Your task to perform on an android device: turn off translation in the chrome app Image 0: 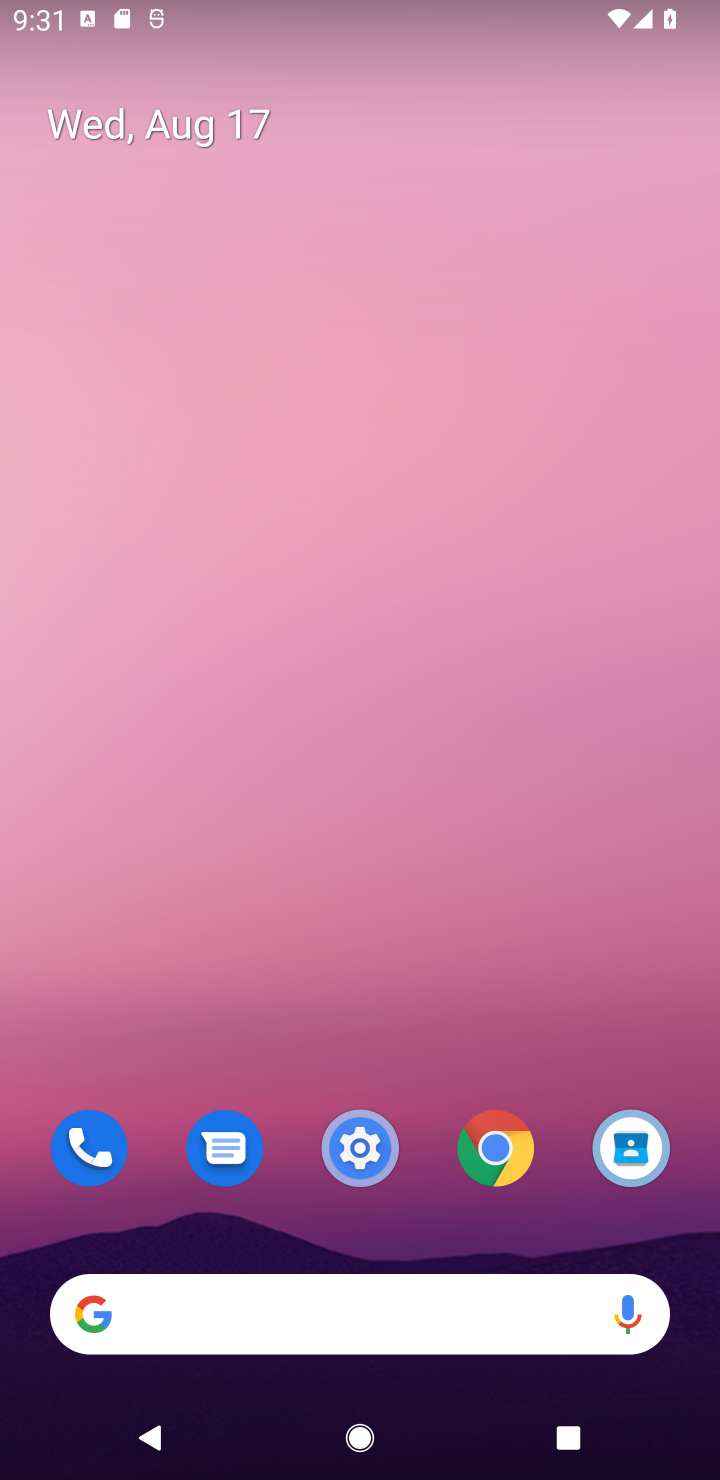
Step 0: click (501, 1154)
Your task to perform on an android device: turn off translation in the chrome app Image 1: 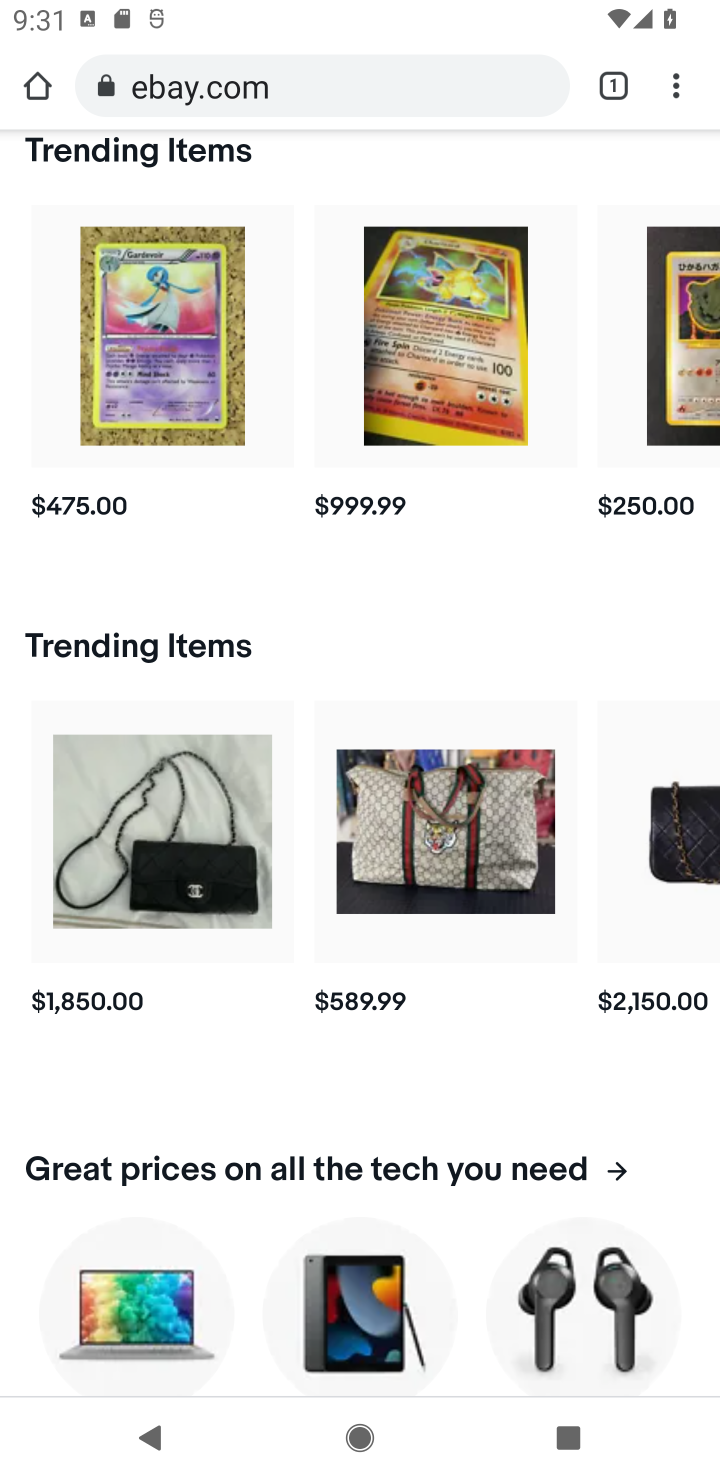
Step 1: click (659, 95)
Your task to perform on an android device: turn off translation in the chrome app Image 2: 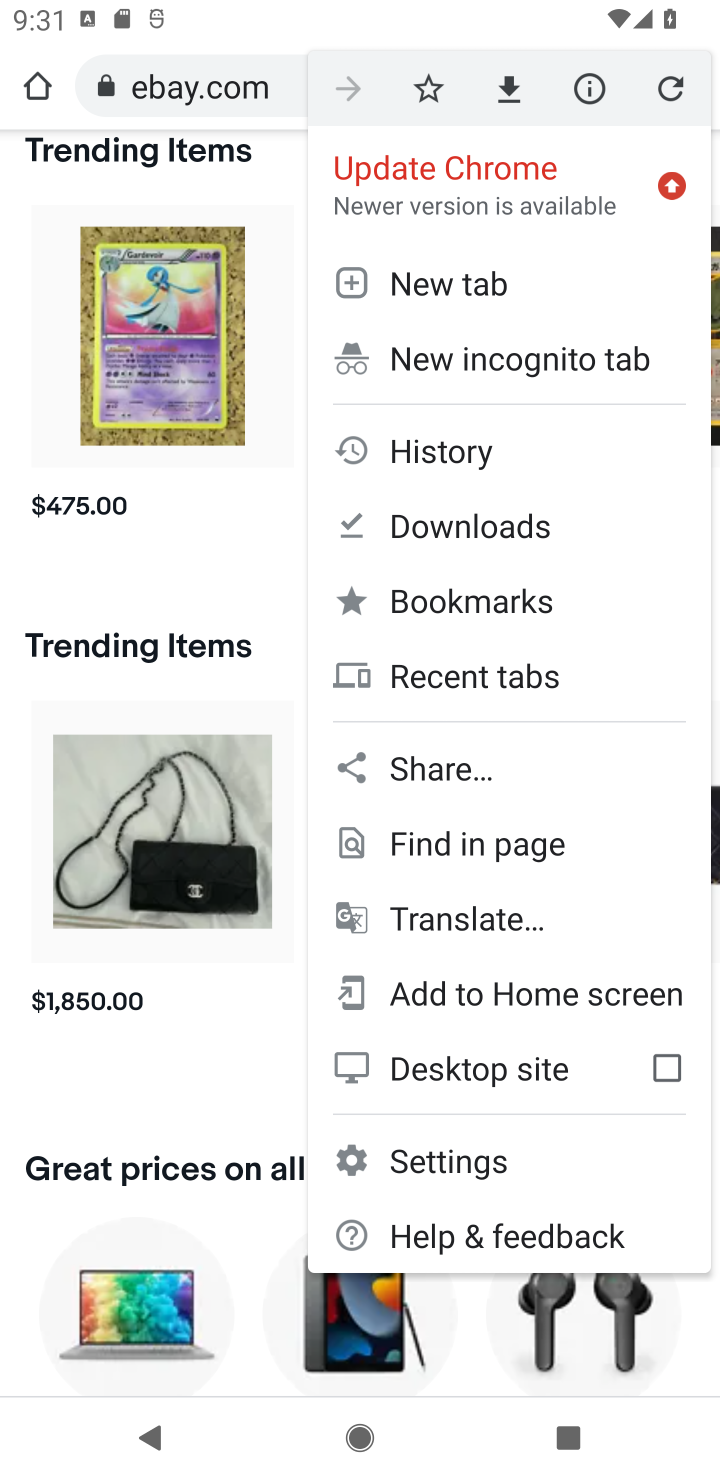
Step 2: click (468, 1152)
Your task to perform on an android device: turn off translation in the chrome app Image 3: 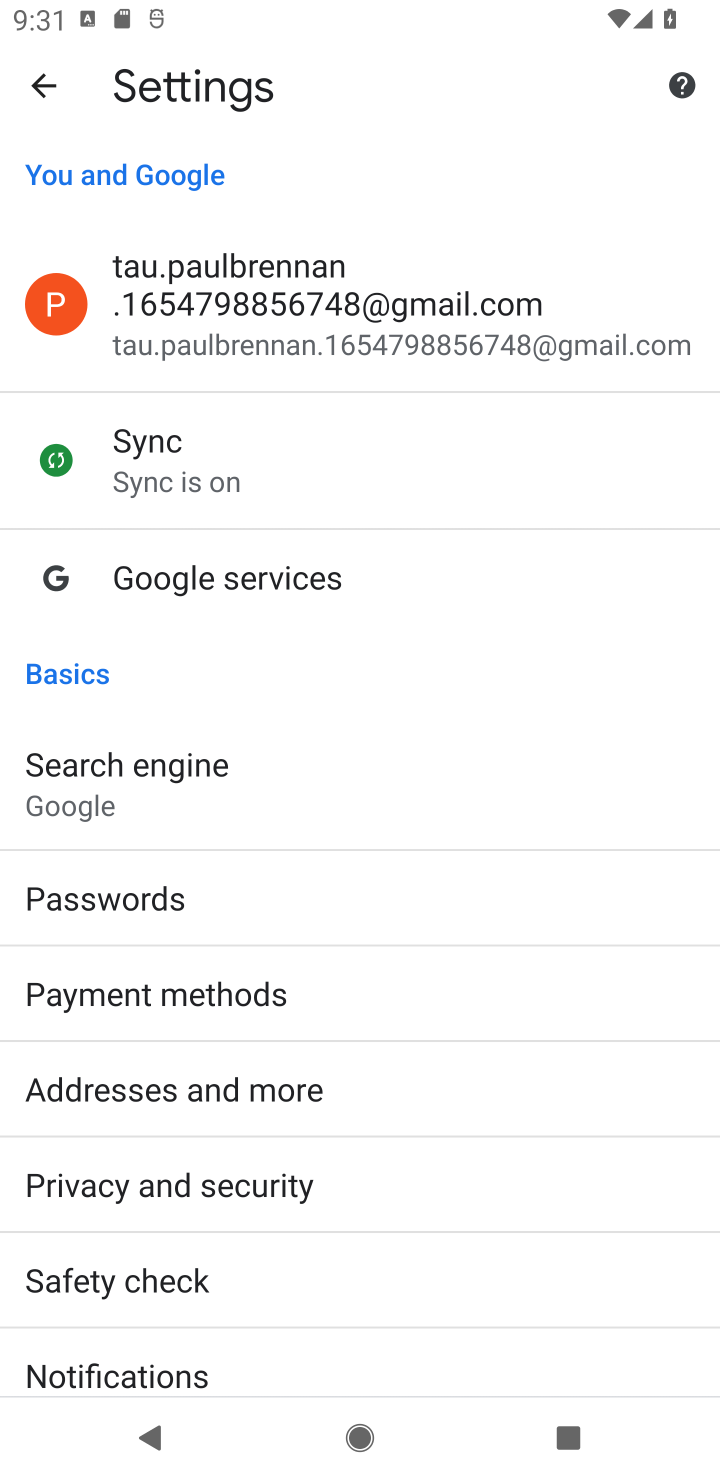
Step 3: drag from (422, 1356) to (299, 246)
Your task to perform on an android device: turn off translation in the chrome app Image 4: 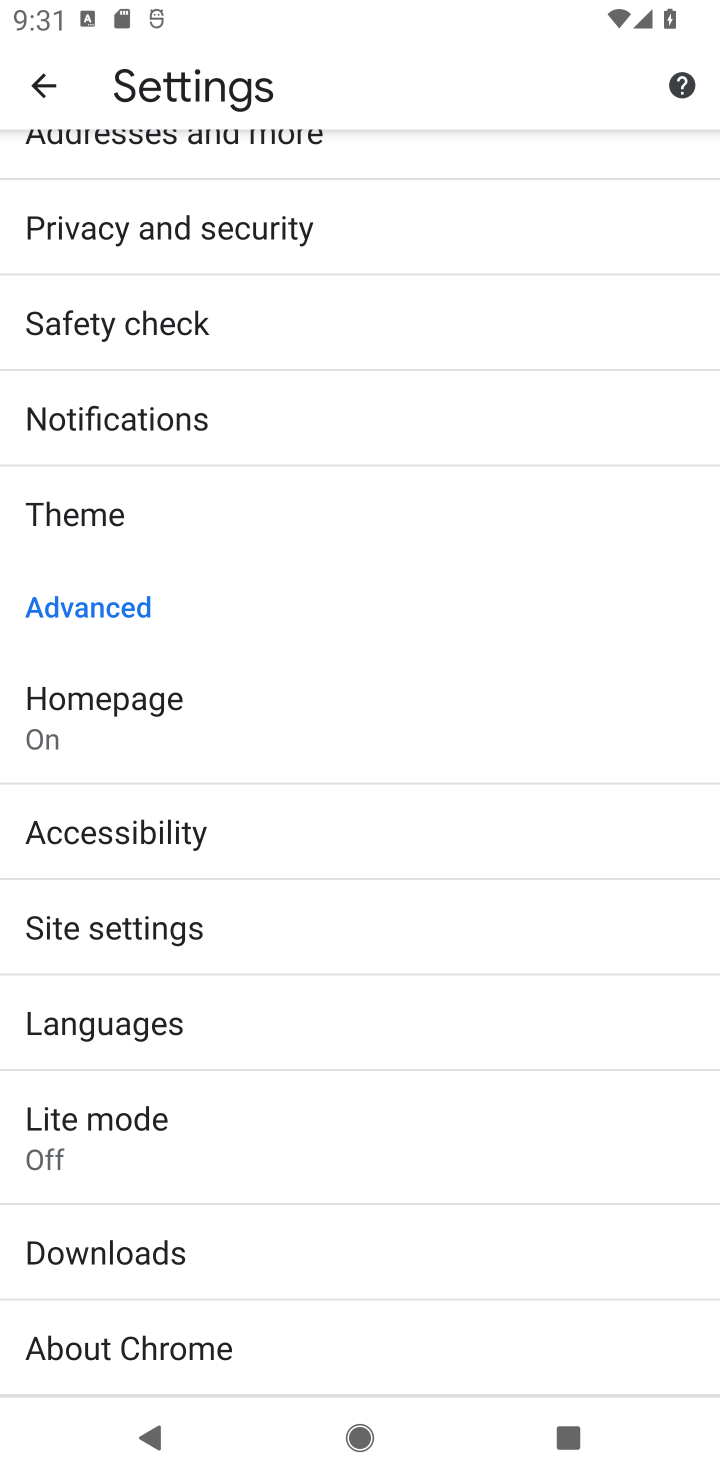
Step 4: click (114, 1025)
Your task to perform on an android device: turn off translation in the chrome app Image 5: 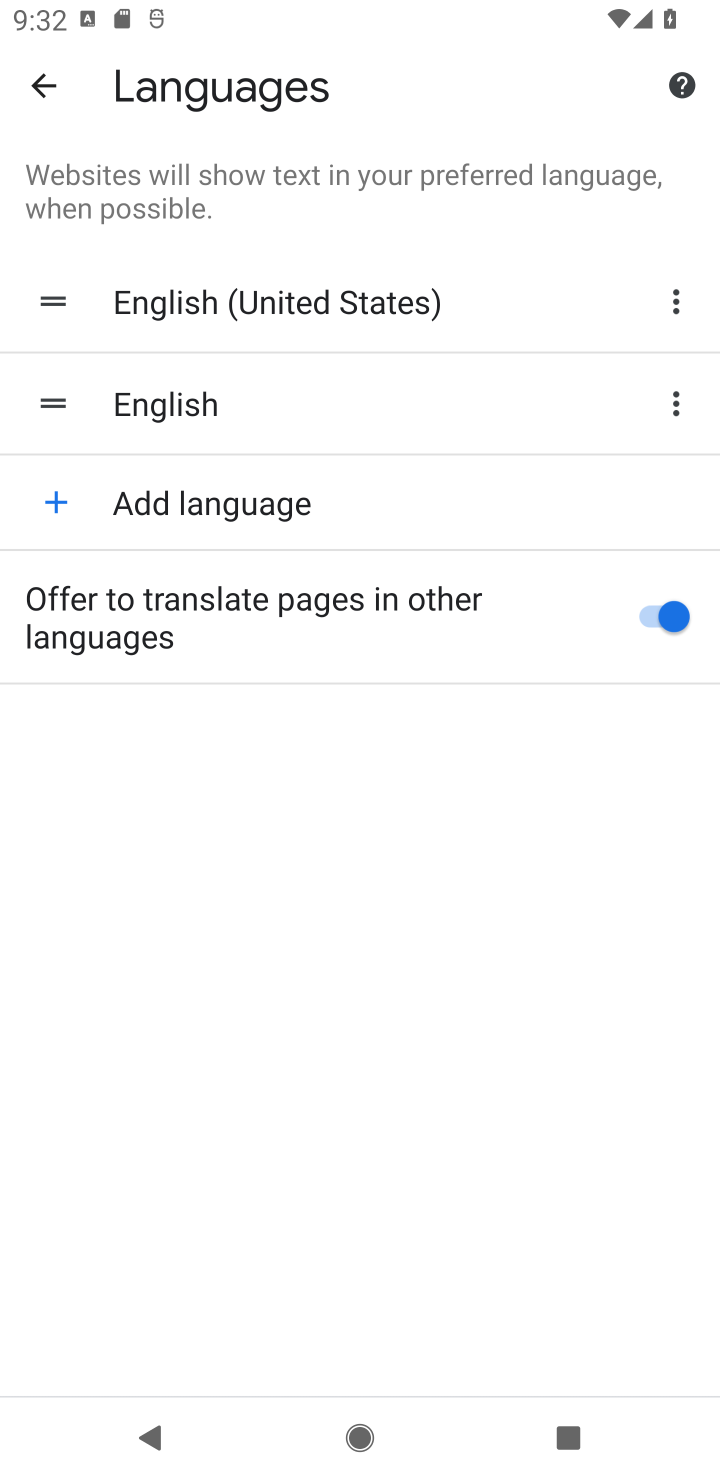
Step 5: click (649, 622)
Your task to perform on an android device: turn off translation in the chrome app Image 6: 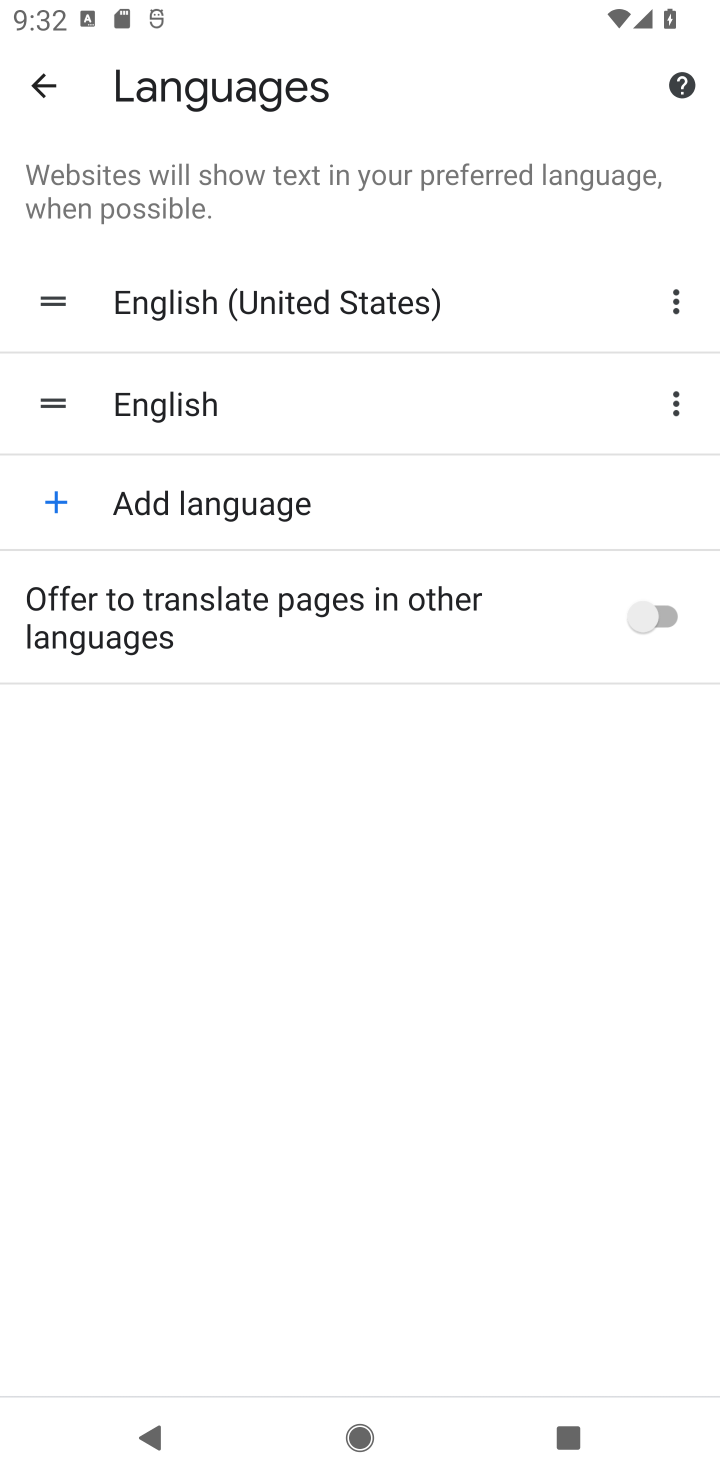
Step 6: task complete